Your task to perform on an android device: turn on the 12-hour format for clock Image 0: 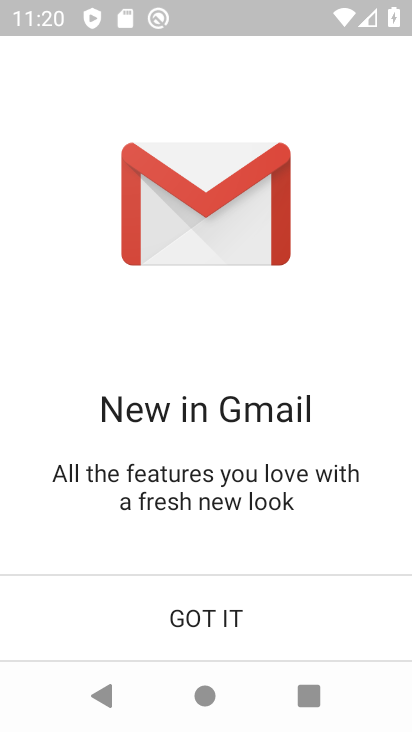
Step 0: press home button
Your task to perform on an android device: turn on the 12-hour format for clock Image 1: 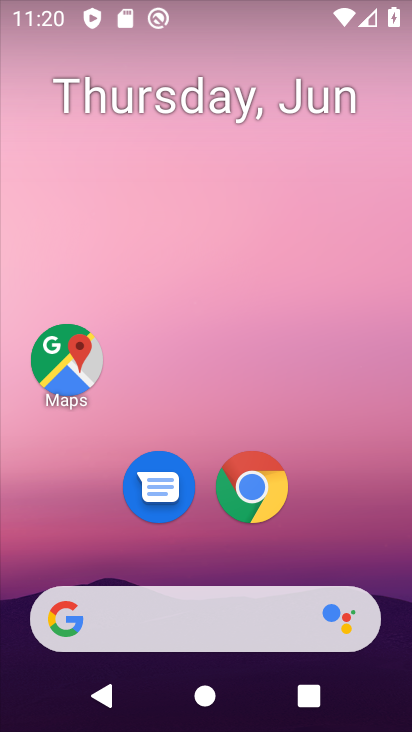
Step 1: drag from (127, 529) to (263, 85)
Your task to perform on an android device: turn on the 12-hour format for clock Image 2: 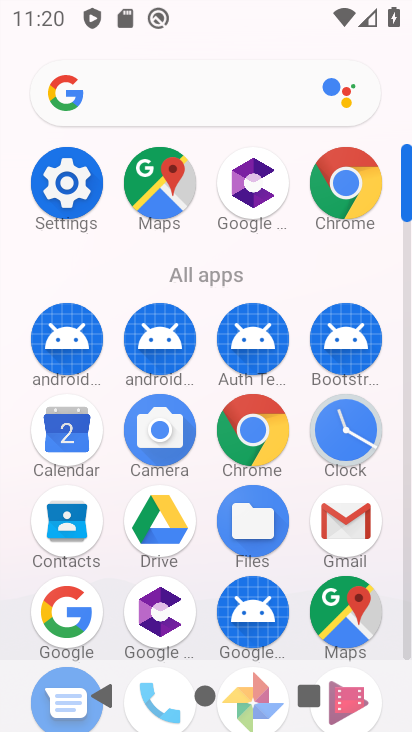
Step 2: click (350, 432)
Your task to perform on an android device: turn on the 12-hour format for clock Image 3: 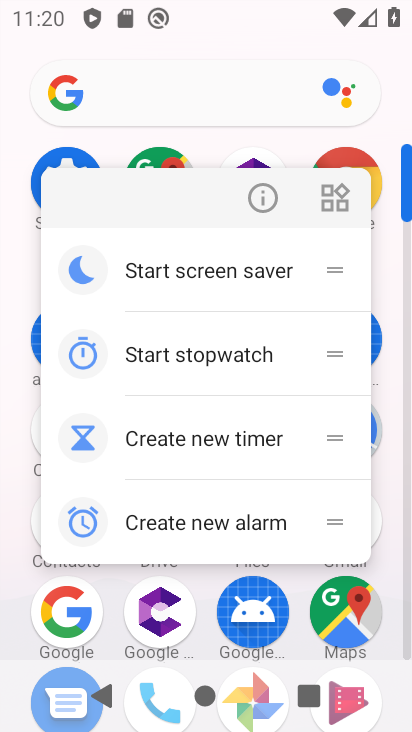
Step 3: click (382, 405)
Your task to perform on an android device: turn on the 12-hour format for clock Image 4: 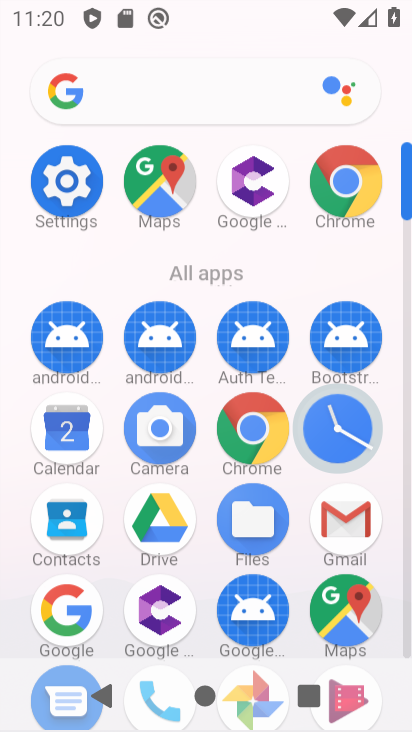
Step 4: click (374, 422)
Your task to perform on an android device: turn on the 12-hour format for clock Image 5: 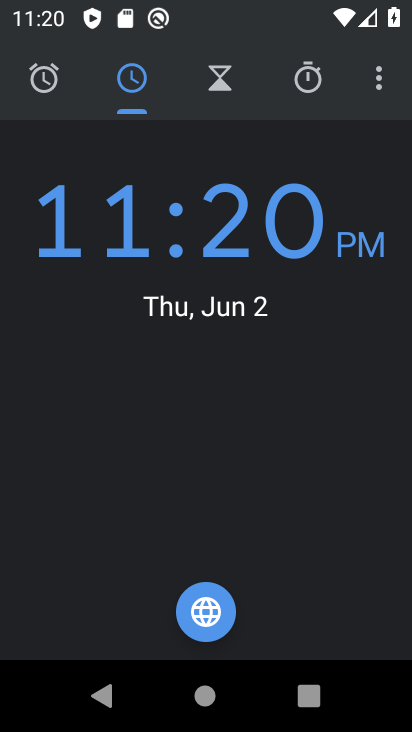
Step 5: click (404, 72)
Your task to perform on an android device: turn on the 12-hour format for clock Image 6: 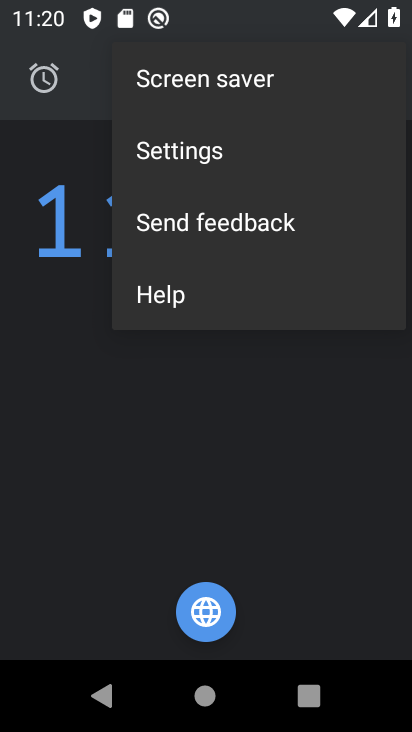
Step 6: click (339, 157)
Your task to perform on an android device: turn on the 12-hour format for clock Image 7: 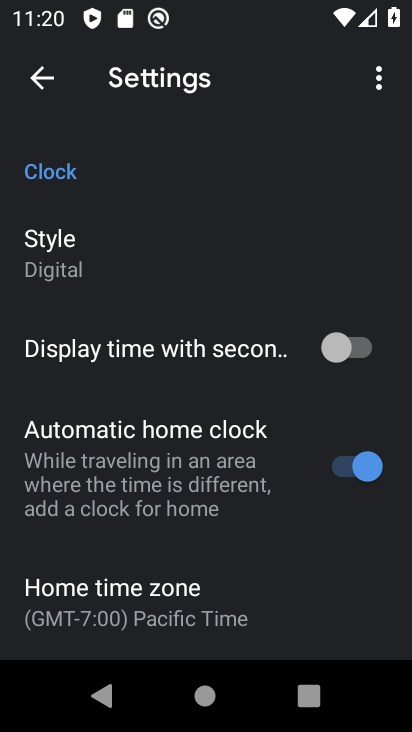
Step 7: drag from (96, 566) to (231, 189)
Your task to perform on an android device: turn on the 12-hour format for clock Image 8: 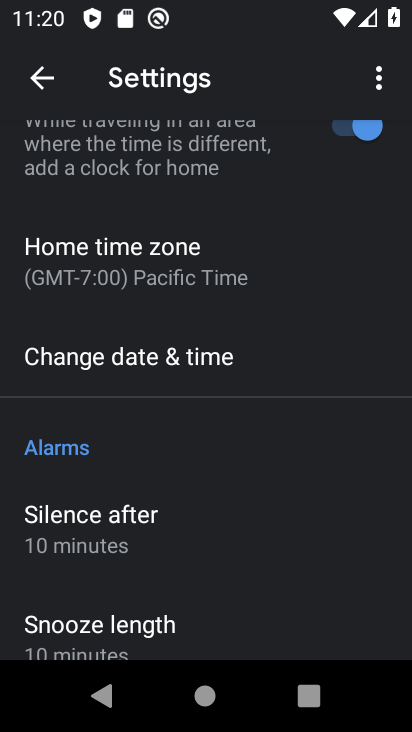
Step 8: click (172, 372)
Your task to perform on an android device: turn on the 12-hour format for clock Image 9: 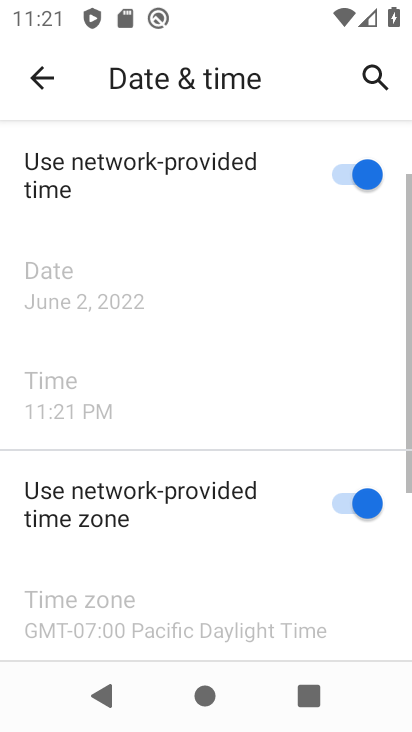
Step 9: task complete